Your task to perform on an android device: open sync settings in chrome Image 0: 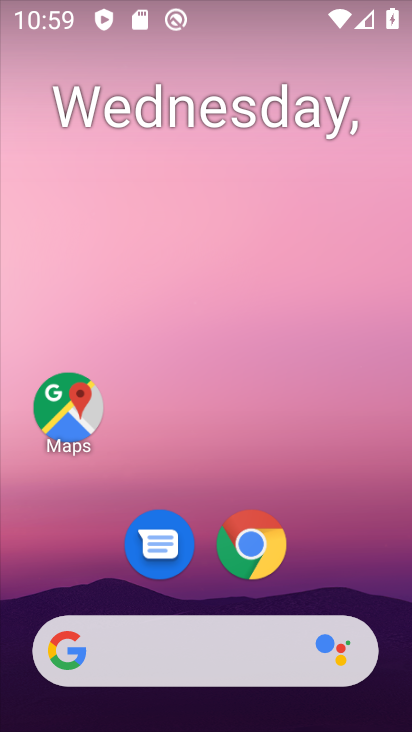
Step 0: drag from (184, 425) to (221, 43)
Your task to perform on an android device: open sync settings in chrome Image 1: 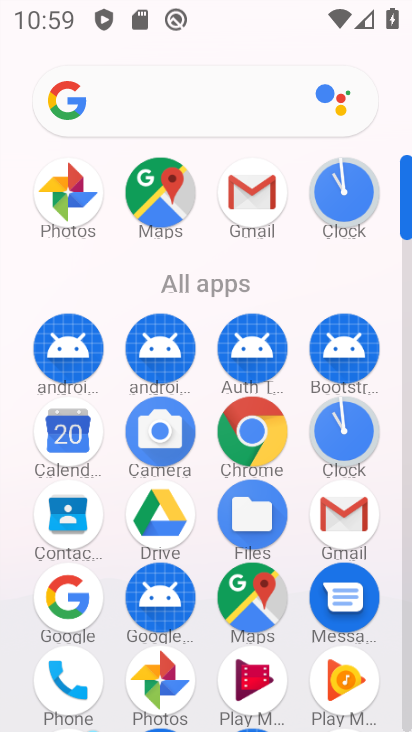
Step 1: drag from (209, 627) to (227, 364)
Your task to perform on an android device: open sync settings in chrome Image 2: 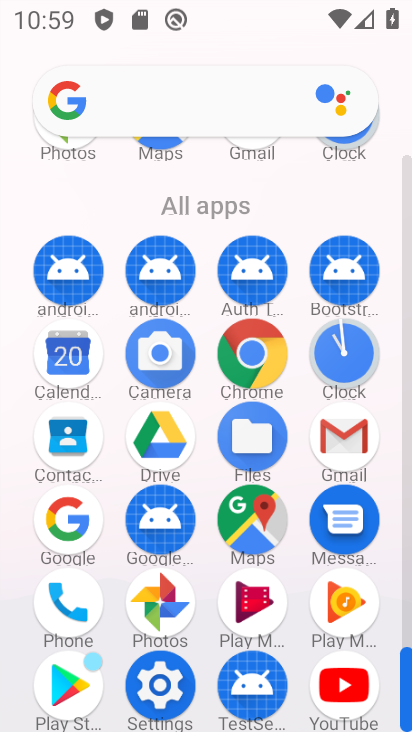
Step 2: click (241, 363)
Your task to perform on an android device: open sync settings in chrome Image 3: 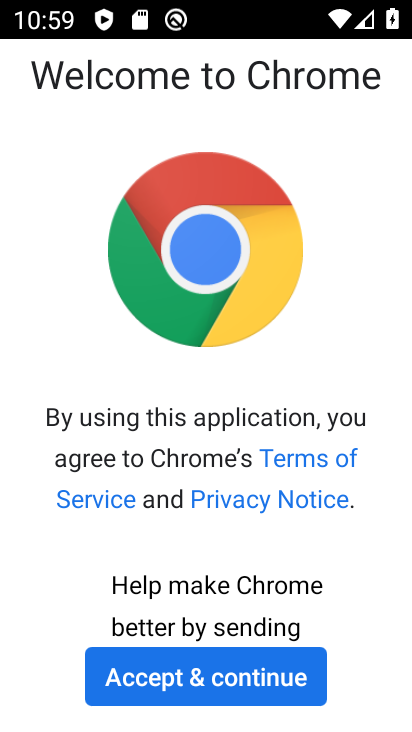
Step 3: click (213, 677)
Your task to perform on an android device: open sync settings in chrome Image 4: 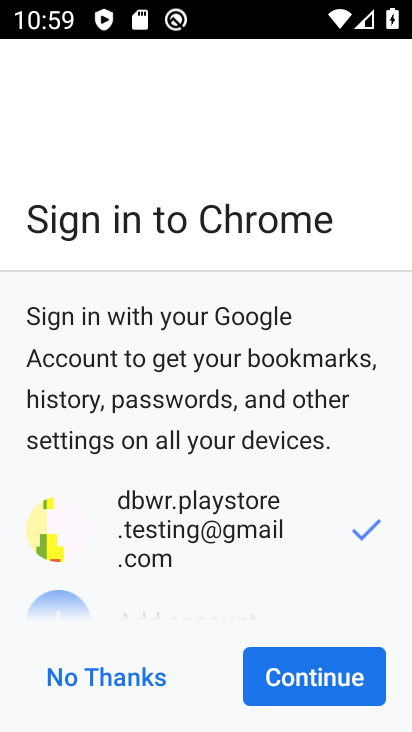
Step 4: click (267, 673)
Your task to perform on an android device: open sync settings in chrome Image 5: 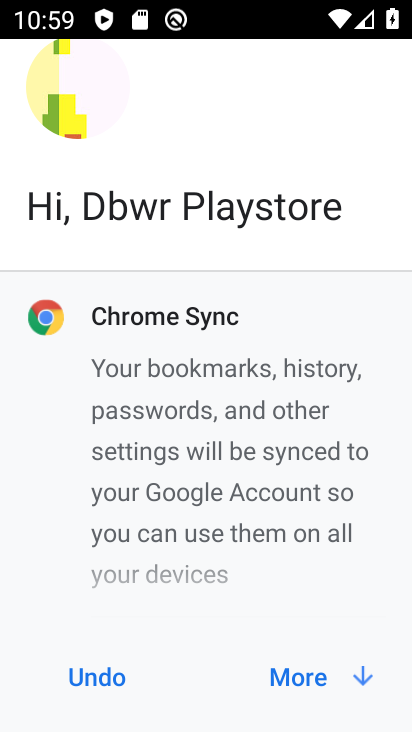
Step 5: click (278, 674)
Your task to perform on an android device: open sync settings in chrome Image 6: 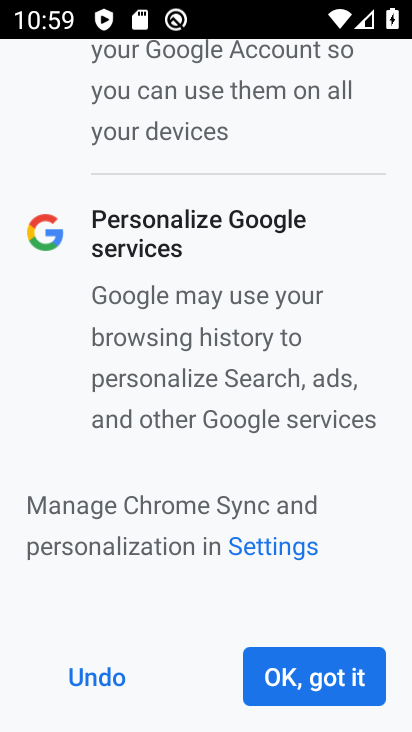
Step 6: click (278, 674)
Your task to perform on an android device: open sync settings in chrome Image 7: 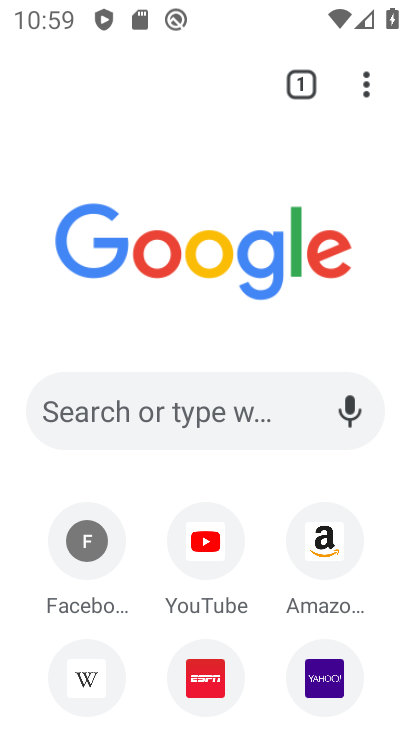
Step 7: click (365, 92)
Your task to perform on an android device: open sync settings in chrome Image 8: 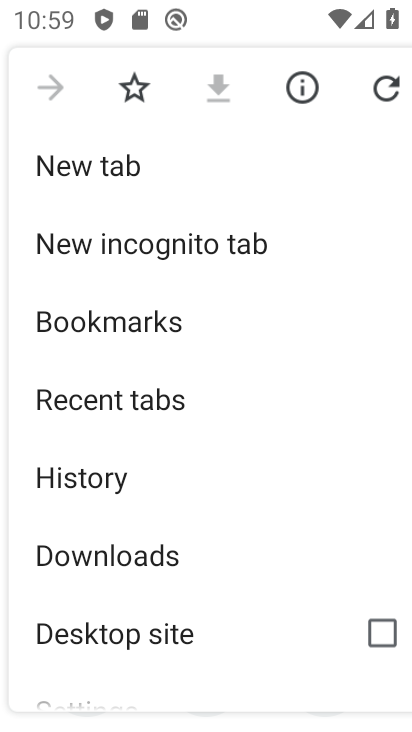
Step 8: drag from (109, 641) to (153, 267)
Your task to perform on an android device: open sync settings in chrome Image 9: 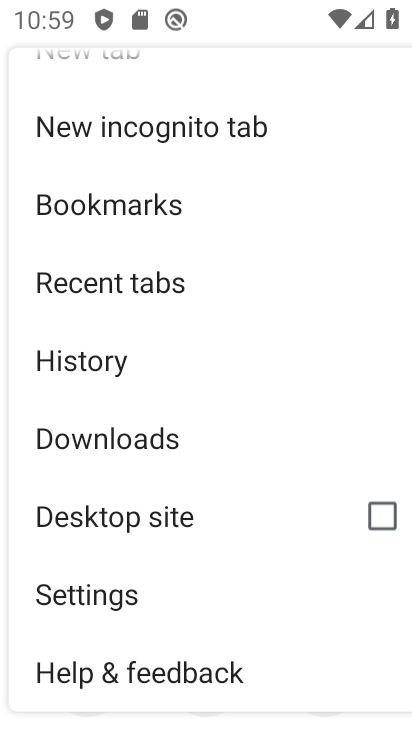
Step 9: click (100, 620)
Your task to perform on an android device: open sync settings in chrome Image 10: 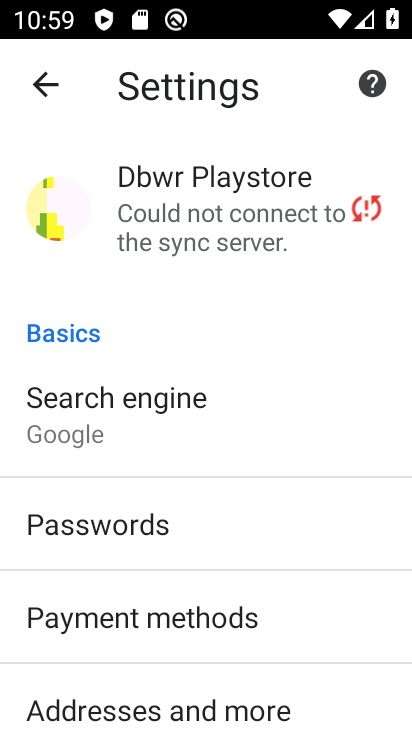
Step 10: drag from (125, 565) to (151, 335)
Your task to perform on an android device: open sync settings in chrome Image 11: 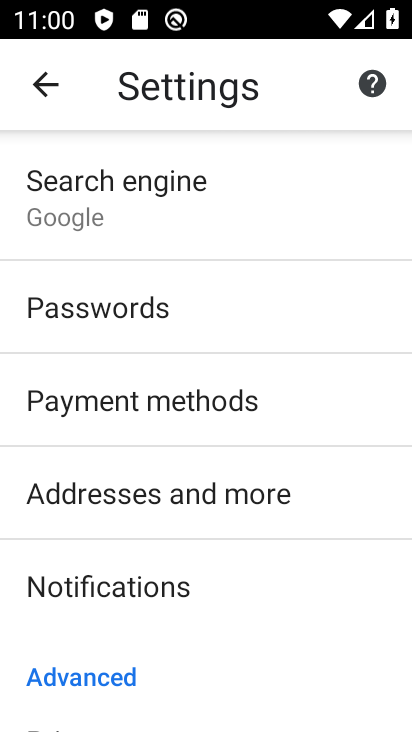
Step 11: drag from (106, 614) to (157, 339)
Your task to perform on an android device: open sync settings in chrome Image 12: 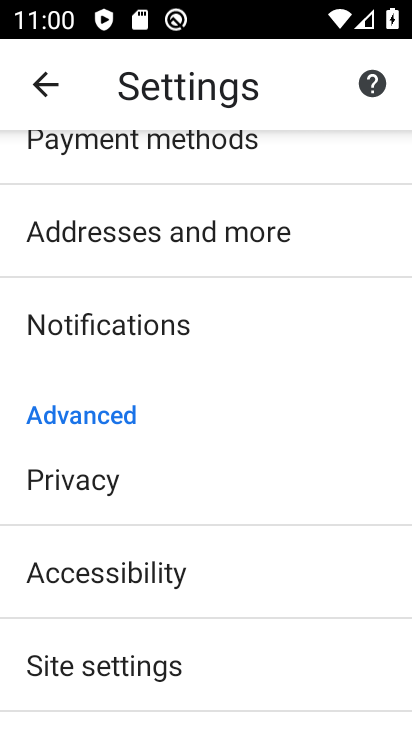
Step 12: click (153, 642)
Your task to perform on an android device: open sync settings in chrome Image 13: 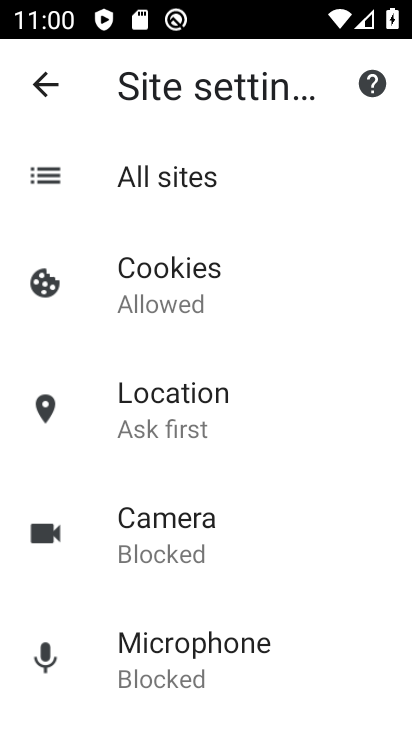
Step 13: drag from (173, 554) to (198, 228)
Your task to perform on an android device: open sync settings in chrome Image 14: 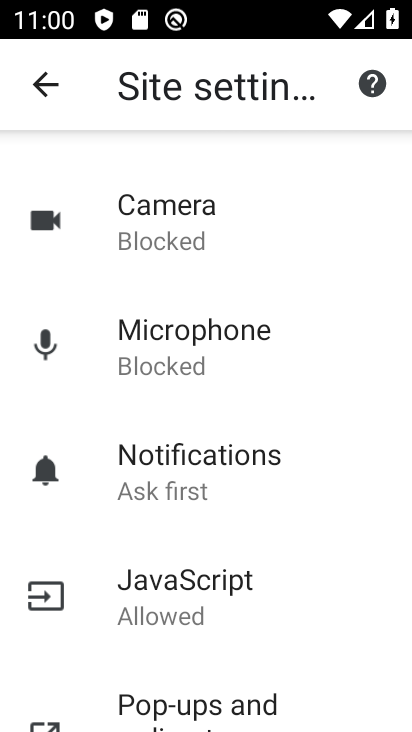
Step 14: drag from (234, 607) to (273, 225)
Your task to perform on an android device: open sync settings in chrome Image 15: 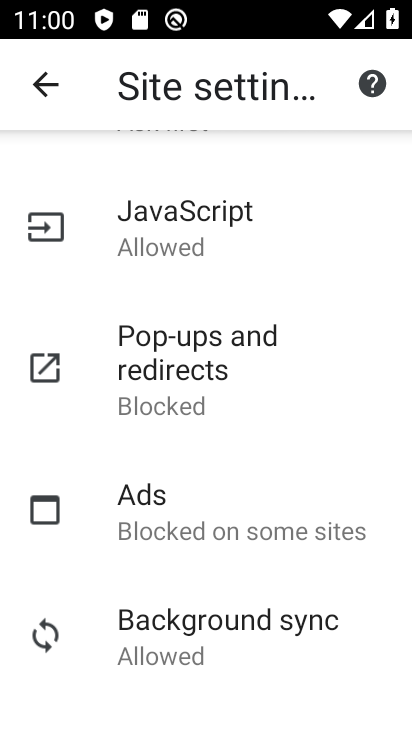
Step 15: click (224, 649)
Your task to perform on an android device: open sync settings in chrome Image 16: 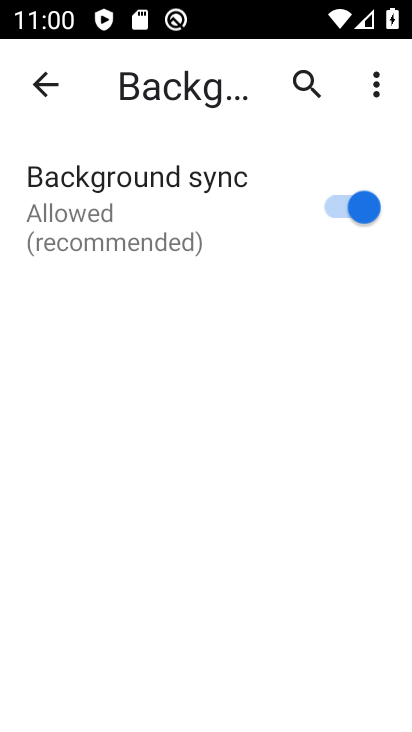
Step 16: task complete